Your task to perform on an android device: see tabs open on other devices in the chrome app Image 0: 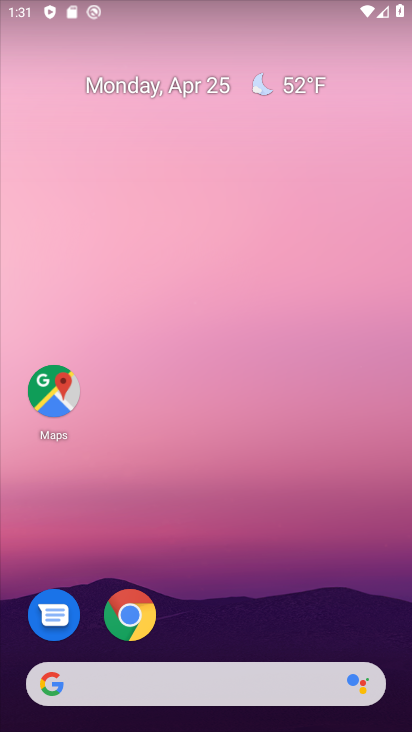
Step 0: click (132, 617)
Your task to perform on an android device: see tabs open on other devices in the chrome app Image 1: 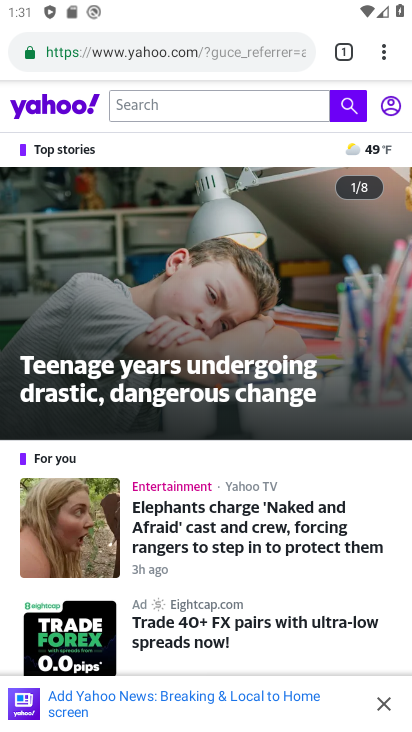
Step 1: click (385, 52)
Your task to perform on an android device: see tabs open on other devices in the chrome app Image 2: 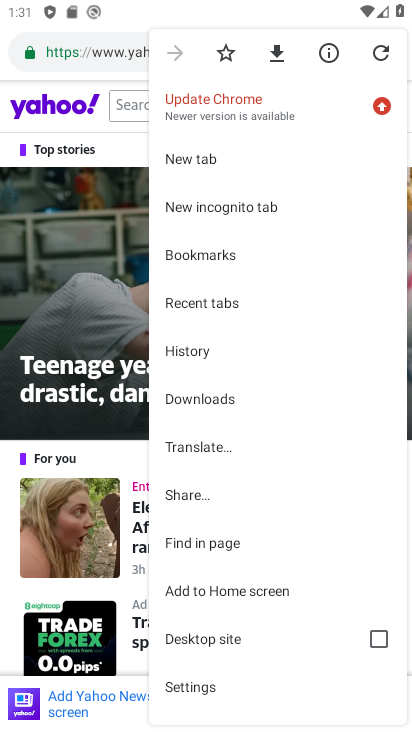
Step 2: click (217, 303)
Your task to perform on an android device: see tabs open on other devices in the chrome app Image 3: 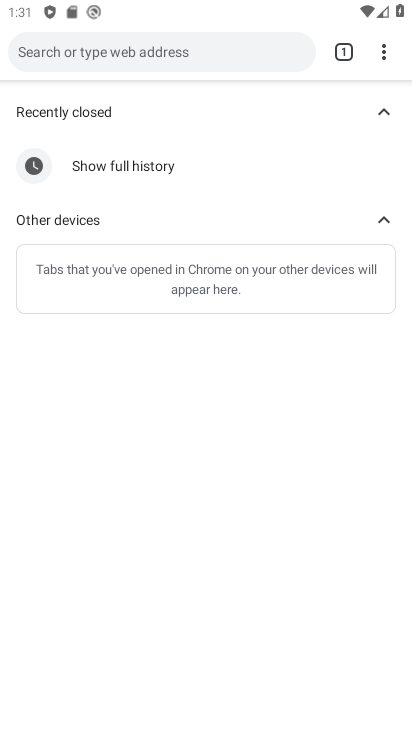
Step 3: click (371, 226)
Your task to perform on an android device: see tabs open on other devices in the chrome app Image 4: 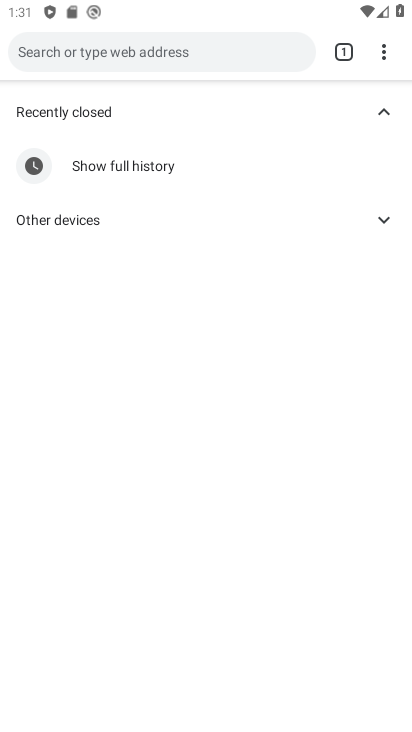
Step 4: task complete